Your task to perform on an android device: Search for Italian restaurants on Maps Image 0: 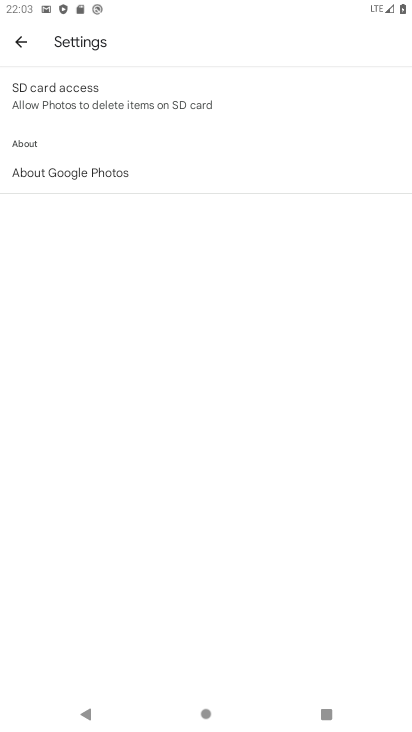
Step 0: press home button
Your task to perform on an android device: Search for Italian restaurants on Maps Image 1: 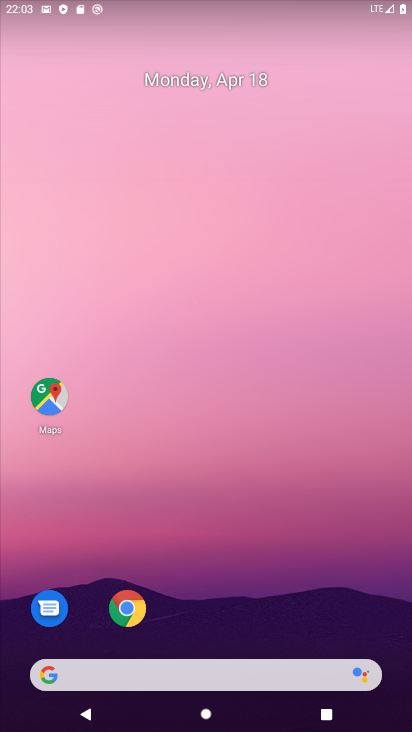
Step 1: click (52, 397)
Your task to perform on an android device: Search for Italian restaurants on Maps Image 2: 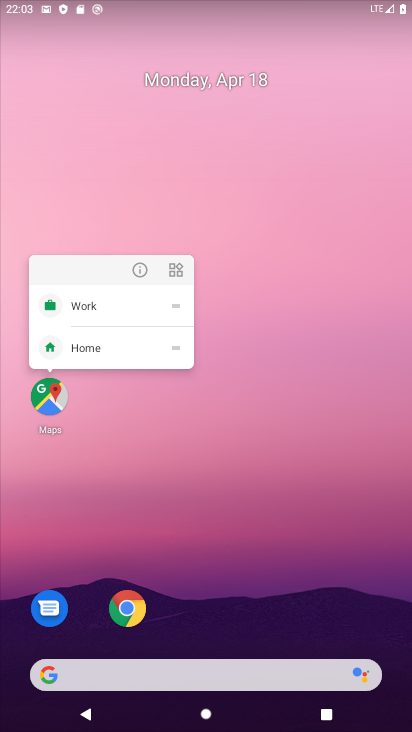
Step 2: click (49, 404)
Your task to perform on an android device: Search for Italian restaurants on Maps Image 3: 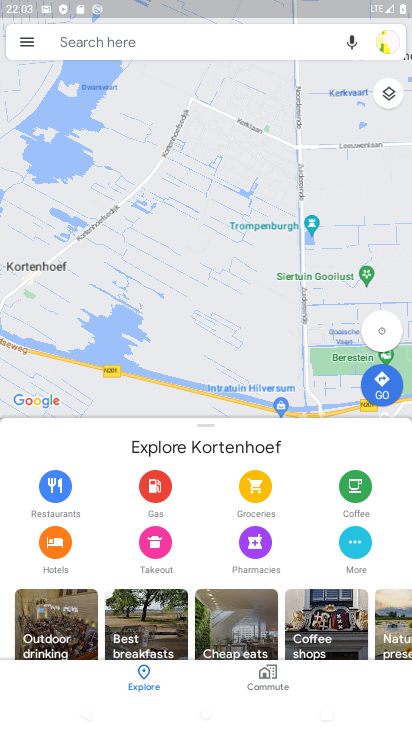
Step 3: click (118, 29)
Your task to perform on an android device: Search for Italian restaurants on Maps Image 4: 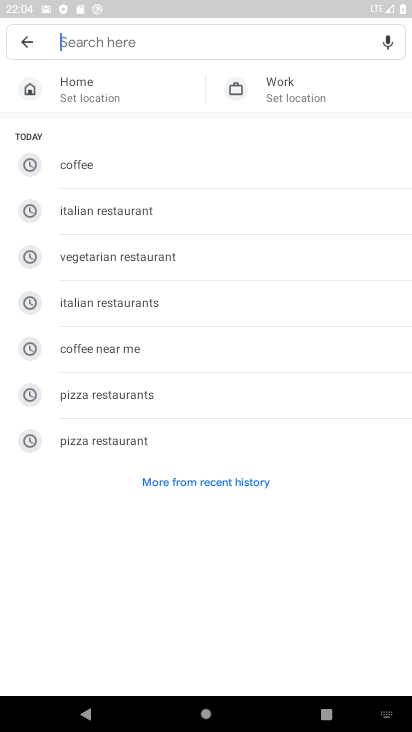
Step 4: click (128, 308)
Your task to perform on an android device: Search for Italian restaurants on Maps Image 5: 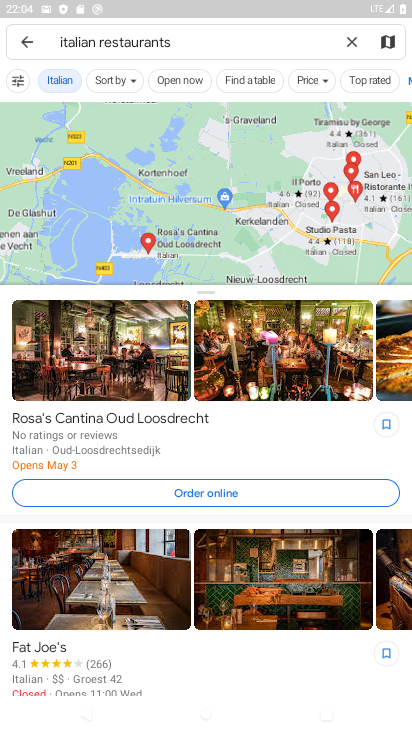
Step 5: task complete